Your task to perform on an android device: Check the weather Image 0: 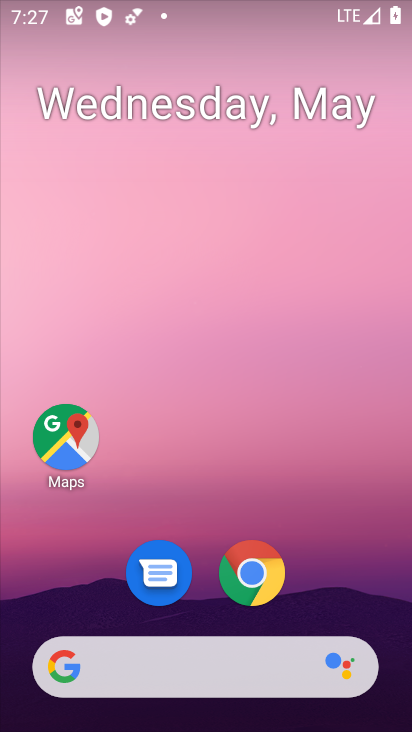
Step 0: drag from (313, 593) to (300, 99)
Your task to perform on an android device: Check the weather Image 1: 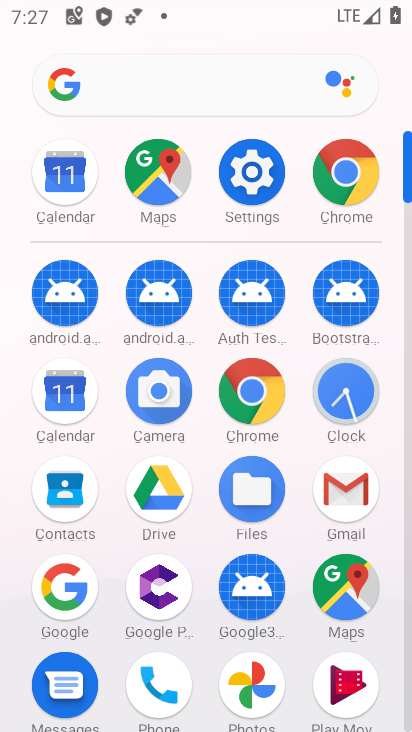
Step 1: drag from (289, 665) to (305, 399)
Your task to perform on an android device: Check the weather Image 2: 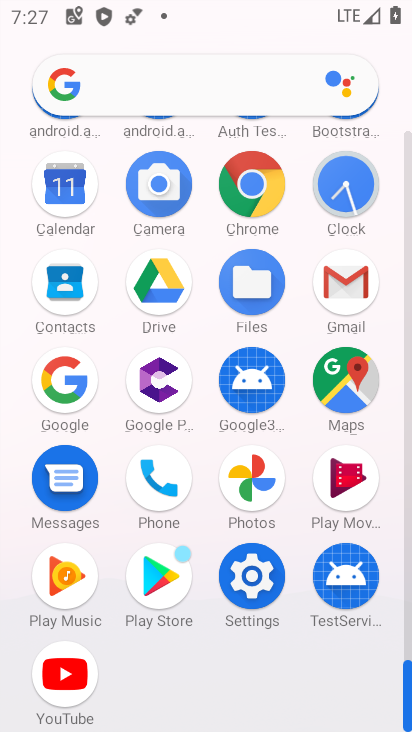
Step 2: click (68, 405)
Your task to perform on an android device: Check the weather Image 3: 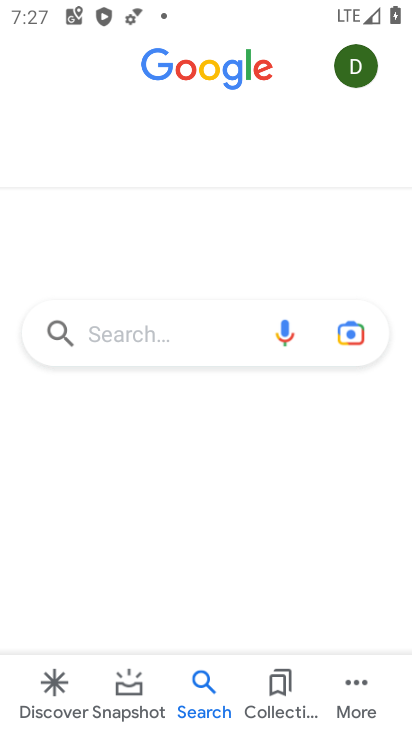
Step 3: click (161, 341)
Your task to perform on an android device: Check the weather Image 4: 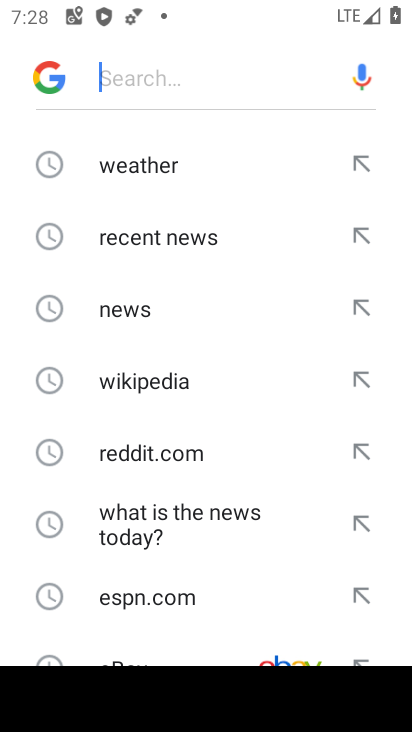
Step 4: click (164, 164)
Your task to perform on an android device: Check the weather Image 5: 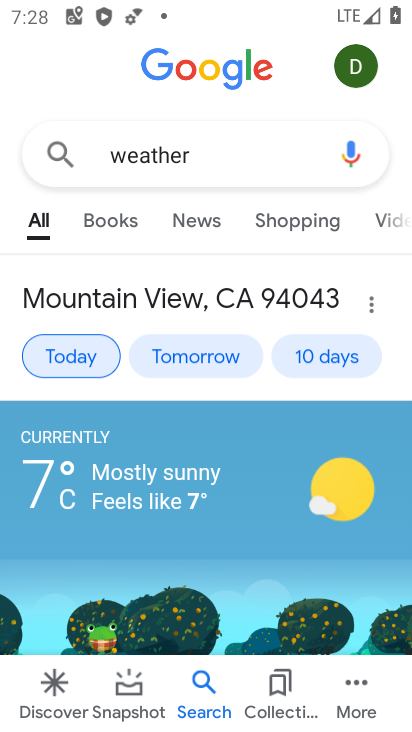
Step 5: task complete